Your task to perform on an android device: turn on airplane mode Image 0: 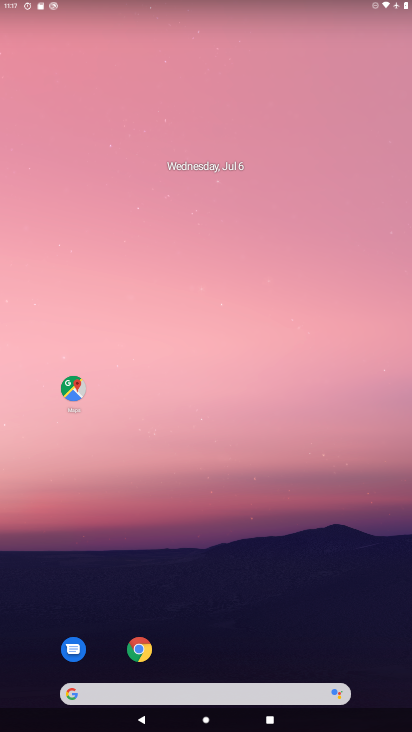
Step 0: drag from (380, 709) to (340, 145)
Your task to perform on an android device: turn on airplane mode Image 1: 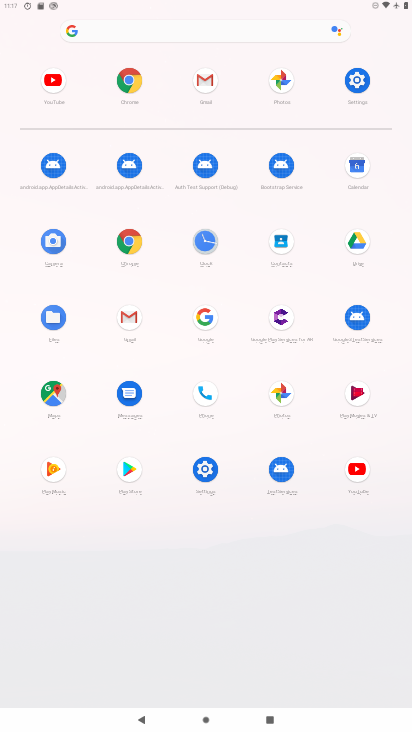
Step 1: click (368, 68)
Your task to perform on an android device: turn on airplane mode Image 2: 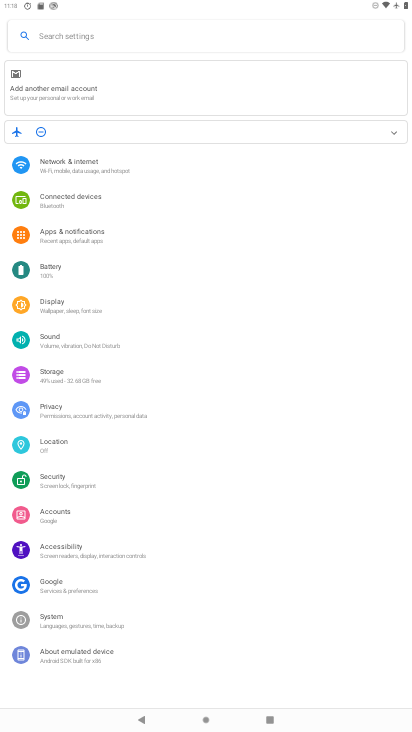
Step 2: click (89, 170)
Your task to perform on an android device: turn on airplane mode Image 3: 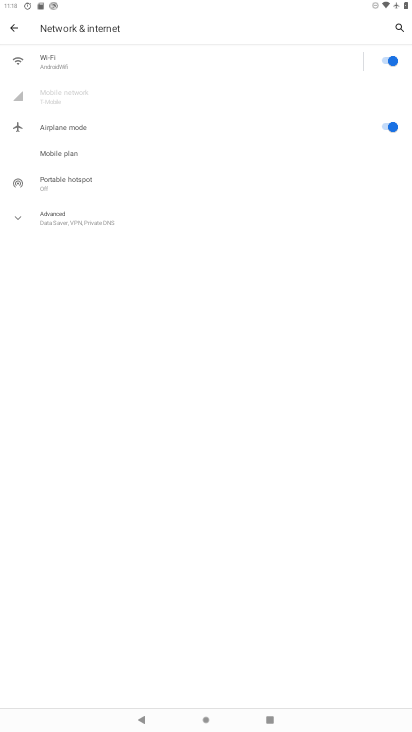
Step 3: task complete